Your task to perform on an android device: turn pop-ups off in chrome Image 0: 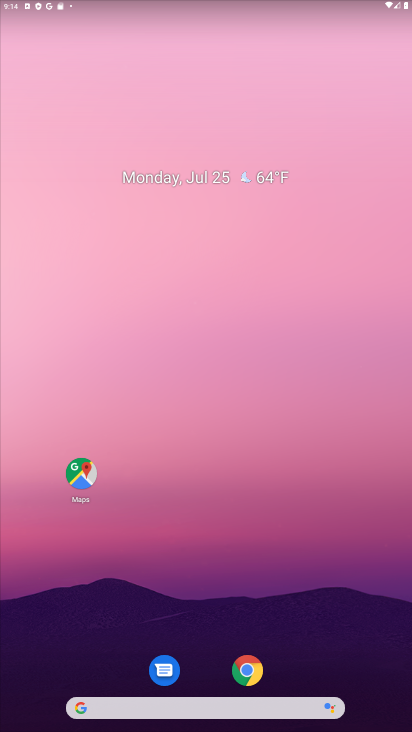
Step 0: drag from (270, 531) to (42, 43)
Your task to perform on an android device: turn pop-ups off in chrome Image 1: 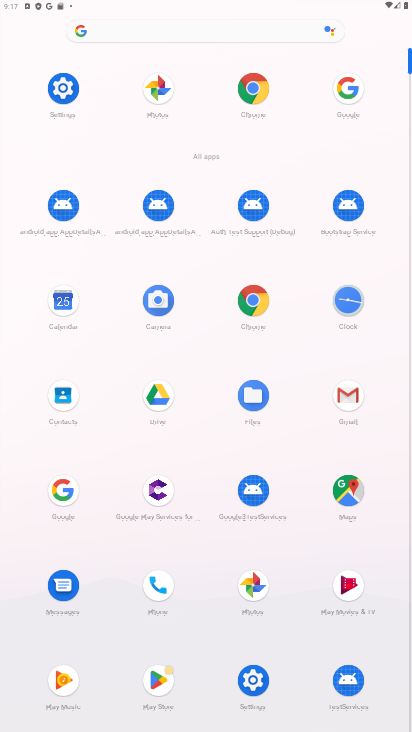
Step 1: click (249, 297)
Your task to perform on an android device: turn pop-ups off in chrome Image 2: 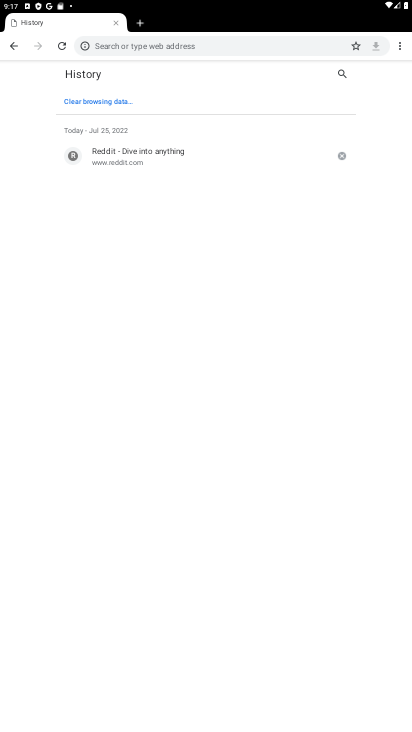
Step 2: click (398, 43)
Your task to perform on an android device: turn pop-ups off in chrome Image 3: 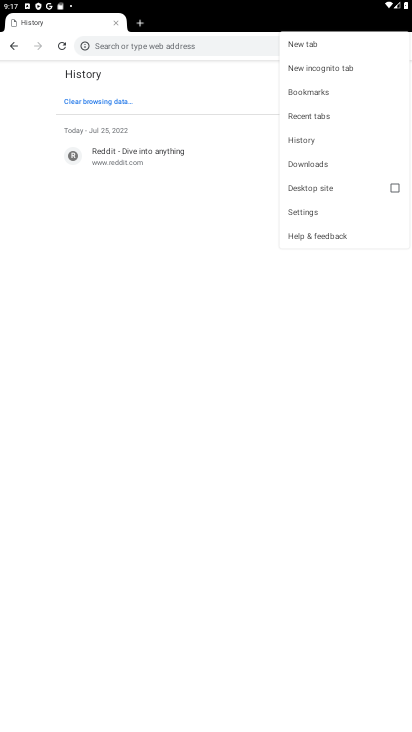
Step 3: click (289, 214)
Your task to perform on an android device: turn pop-ups off in chrome Image 4: 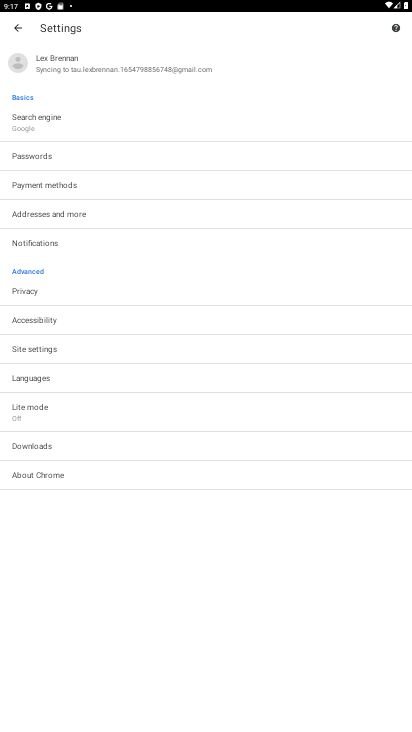
Step 4: click (74, 350)
Your task to perform on an android device: turn pop-ups off in chrome Image 5: 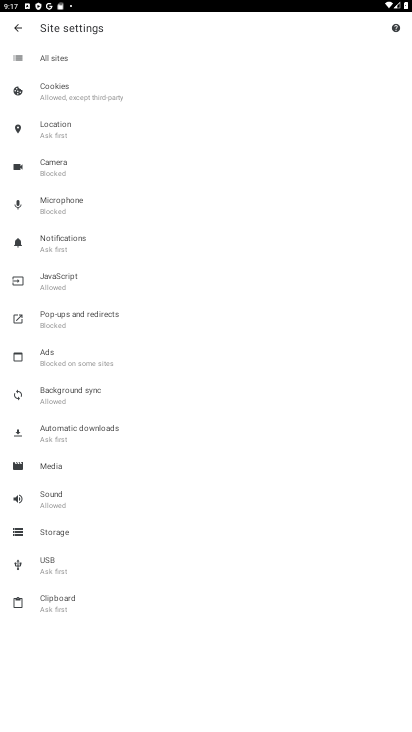
Step 5: click (78, 329)
Your task to perform on an android device: turn pop-ups off in chrome Image 6: 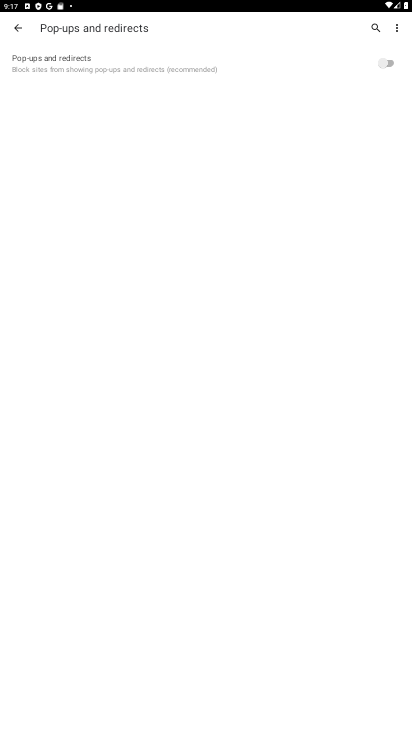
Step 6: task complete